Your task to perform on an android device: install app "Google Play services" Image 0: 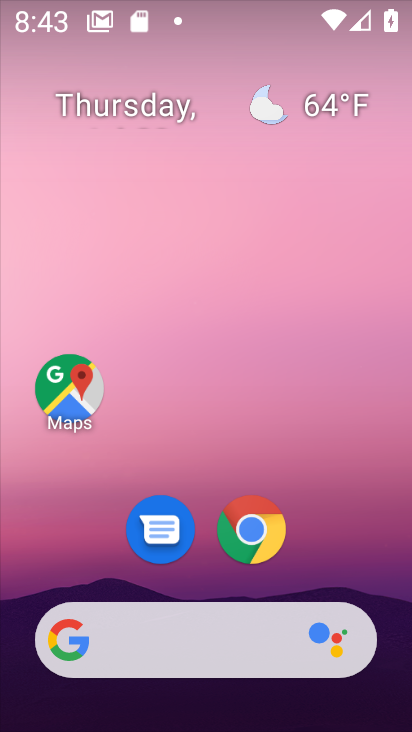
Step 0: click (184, 719)
Your task to perform on an android device: install app "Google Play services" Image 1: 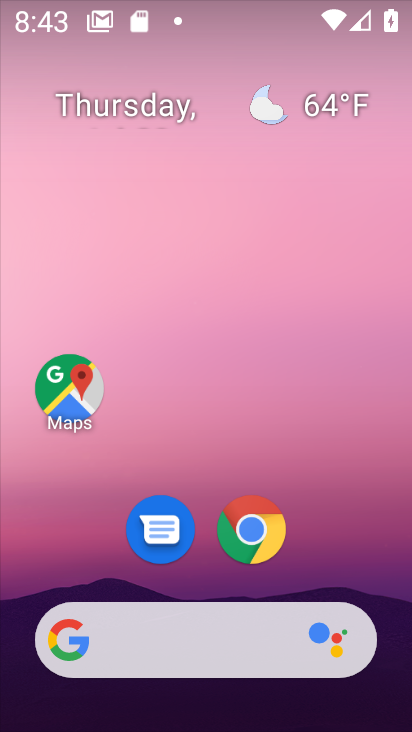
Step 1: drag from (166, 412) to (166, 179)
Your task to perform on an android device: install app "Google Play services" Image 2: 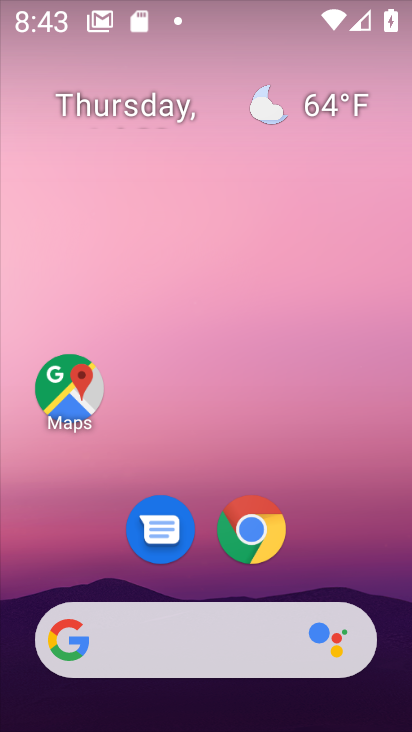
Step 2: drag from (222, 664) to (226, 96)
Your task to perform on an android device: install app "Google Play services" Image 3: 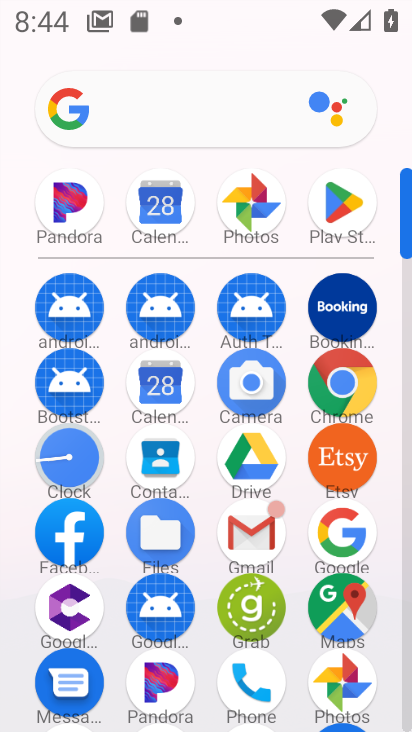
Step 3: click (341, 206)
Your task to perform on an android device: install app "Google Play services" Image 4: 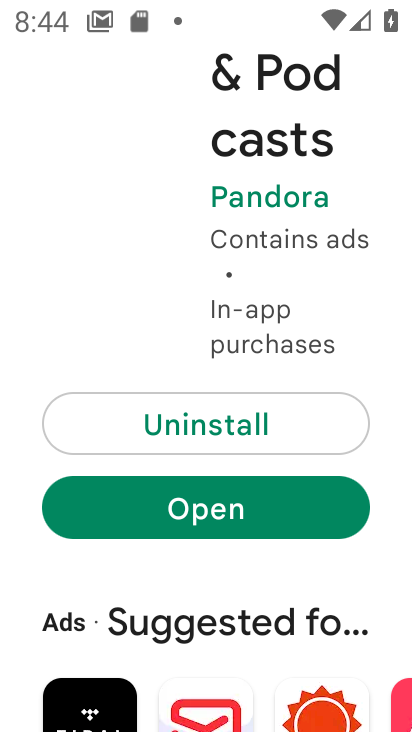
Step 4: drag from (178, 116) to (150, 403)
Your task to perform on an android device: install app "Google Play services" Image 5: 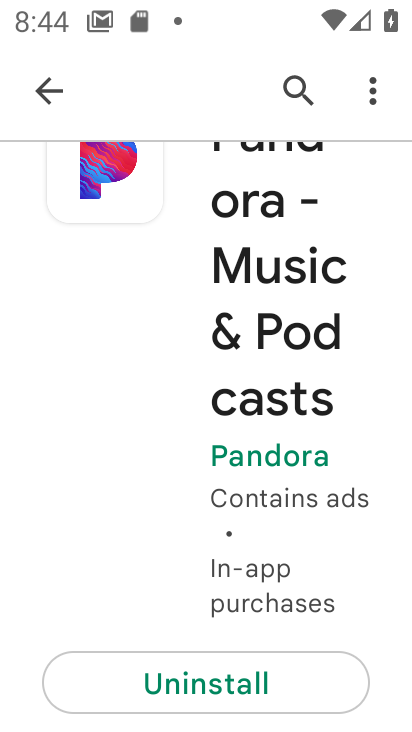
Step 5: click (293, 89)
Your task to perform on an android device: install app "Google Play services" Image 6: 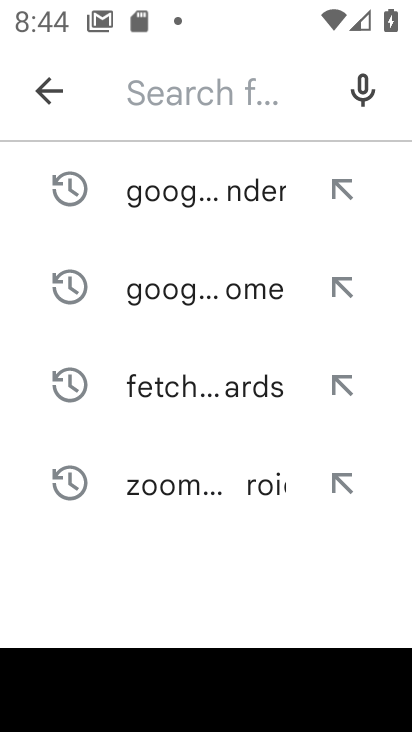
Step 6: type "Google Play services"
Your task to perform on an android device: install app "Google Play services" Image 7: 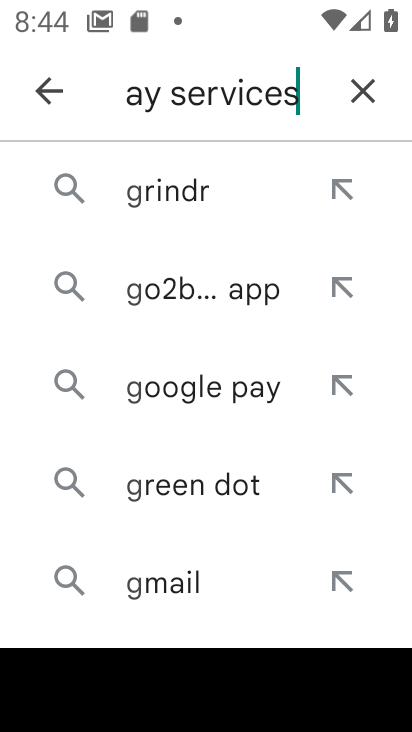
Step 7: type ""
Your task to perform on an android device: install app "Google Play services" Image 8: 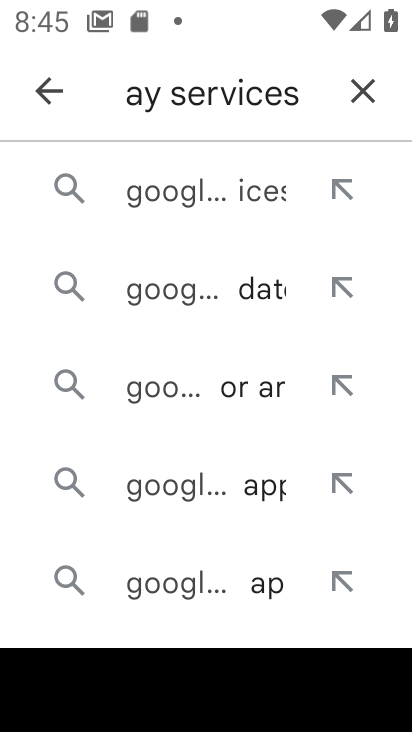
Step 8: click (184, 187)
Your task to perform on an android device: install app "Google Play services" Image 9: 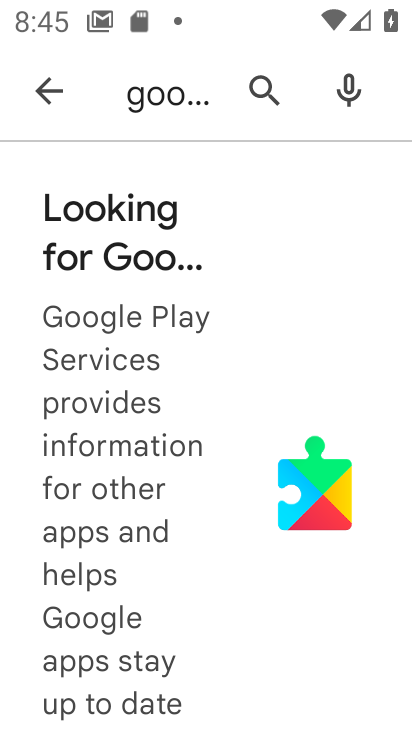
Step 9: drag from (224, 563) to (239, 310)
Your task to perform on an android device: install app "Google Play services" Image 10: 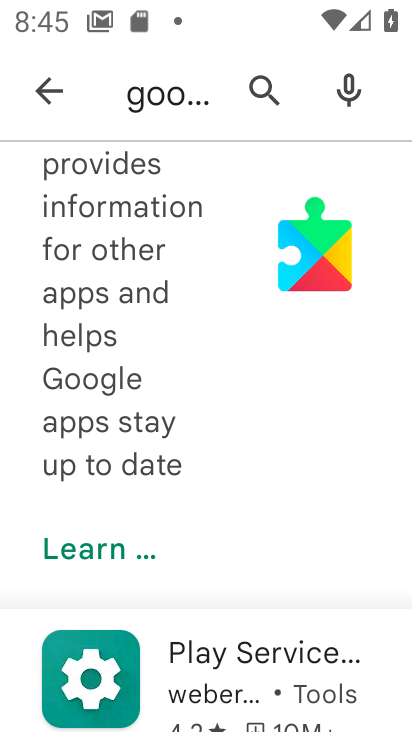
Step 10: drag from (255, 660) to (263, 394)
Your task to perform on an android device: install app "Google Play services" Image 11: 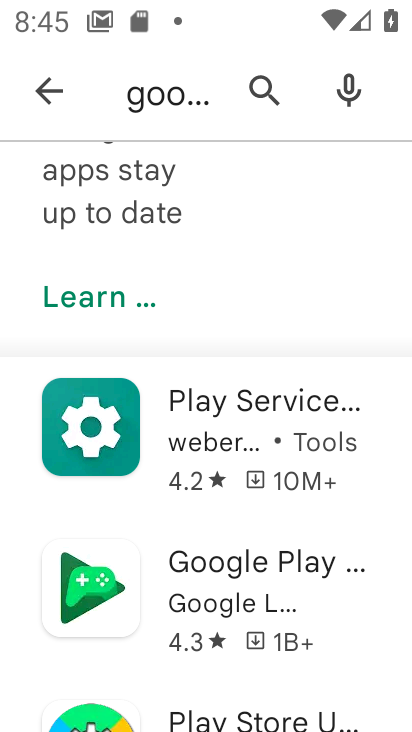
Step 11: click (232, 433)
Your task to perform on an android device: install app "Google Play services" Image 12: 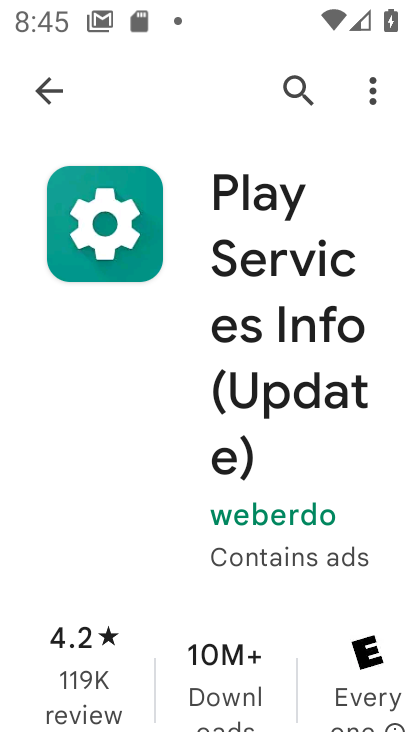
Step 12: drag from (279, 638) to (305, 348)
Your task to perform on an android device: install app "Google Play services" Image 13: 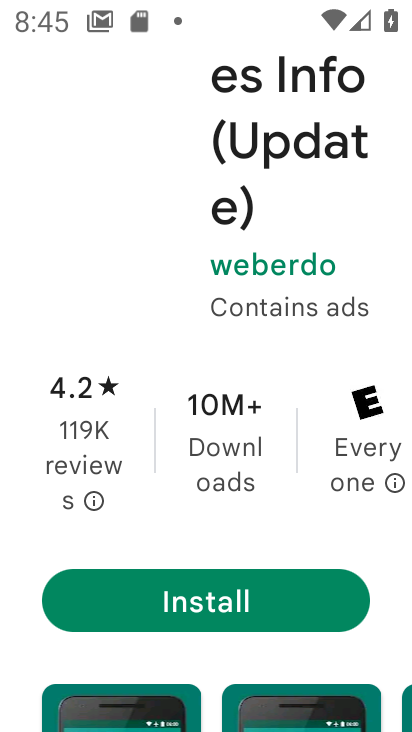
Step 13: click (198, 599)
Your task to perform on an android device: install app "Google Play services" Image 14: 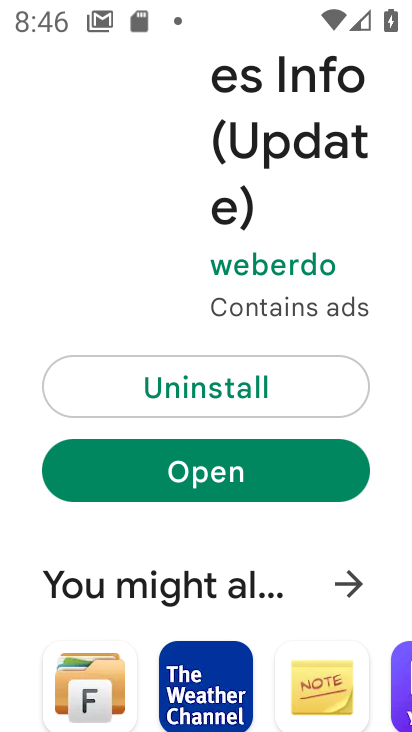
Step 14: task complete